Your task to perform on an android device: Open calendar and show me the fourth week of next month Image 0: 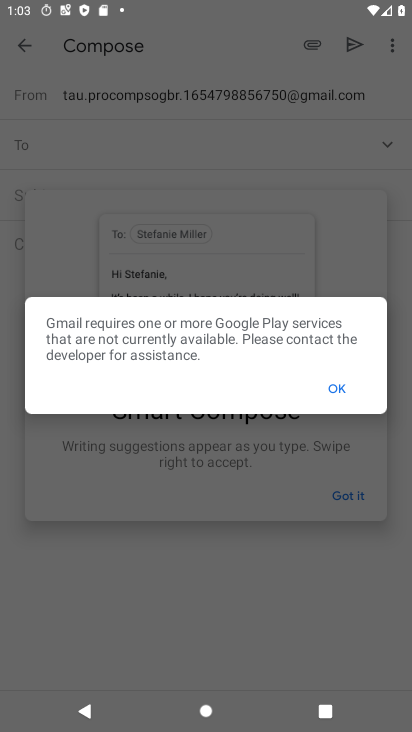
Step 0: press home button
Your task to perform on an android device: Open calendar and show me the fourth week of next month Image 1: 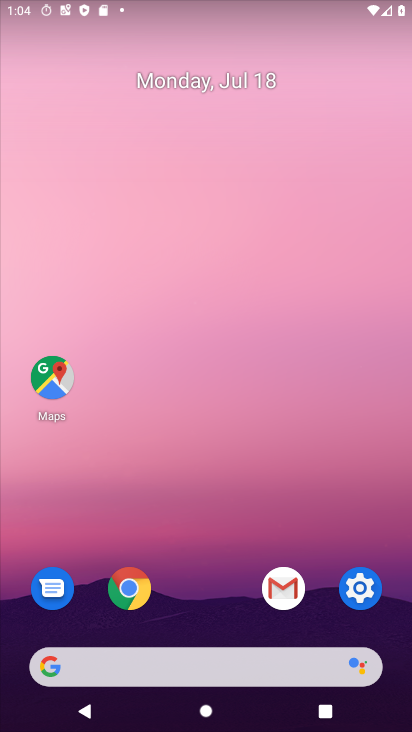
Step 1: drag from (294, 671) to (283, 106)
Your task to perform on an android device: Open calendar and show me the fourth week of next month Image 2: 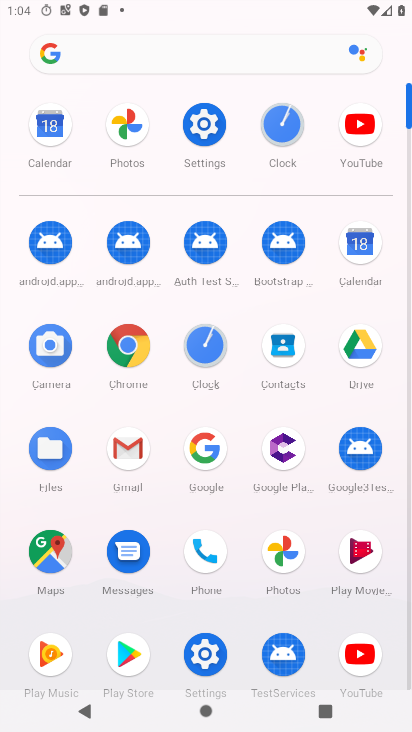
Step 2: click (360, 243)
Your task to perform on an android device: Open calendar and show me the fourth week of next month Image 3: 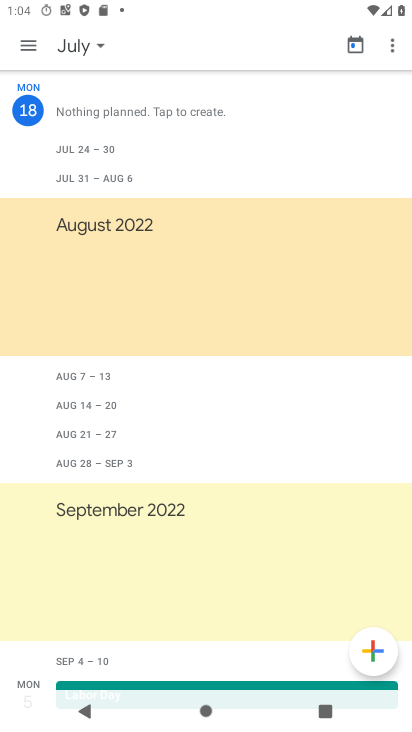
Step 3: click (33, 52)
Your task to perform on an android device: Open calendar and show me the fourth week of next month Image 4: 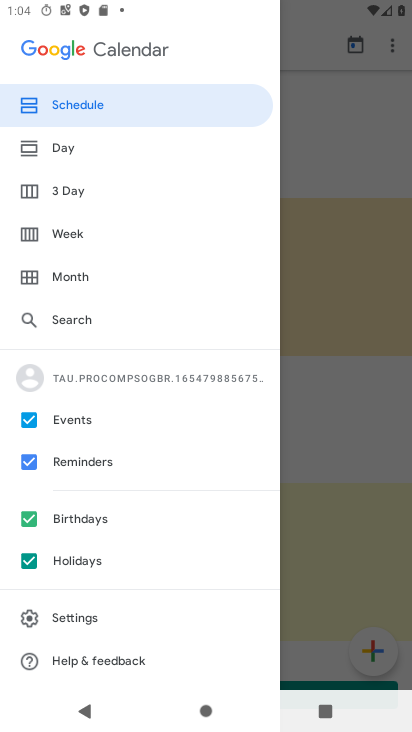
Step 4: click (84, 284)
Your task to perform on an android device: Open calendar and show me the fourth week of next month Image 5: 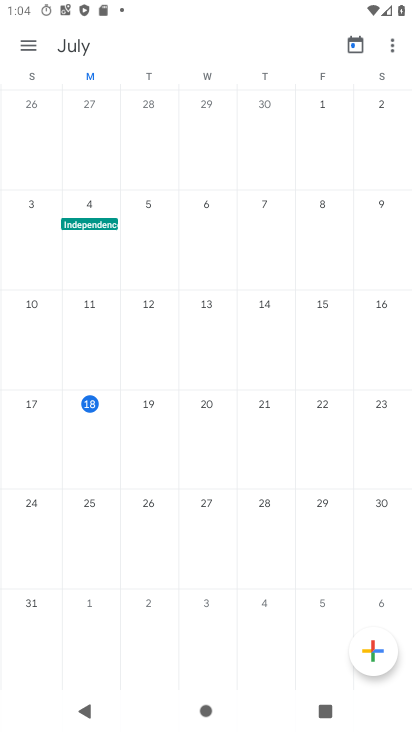
Step 5: drag from (384, 379) to (10, 556)
Your task to perform on an android device: Open calendar and show me the fourth week of next month Image 6: 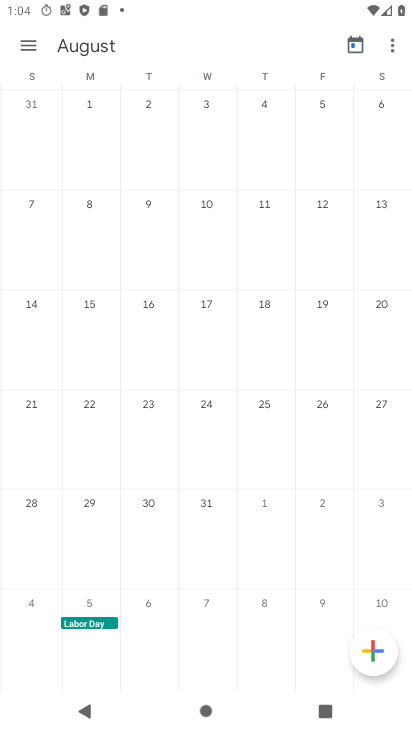
Step 6: click (87, 440)
Your task to perform on an android device: Open calendar and show me the fourth week of next month Image 7: 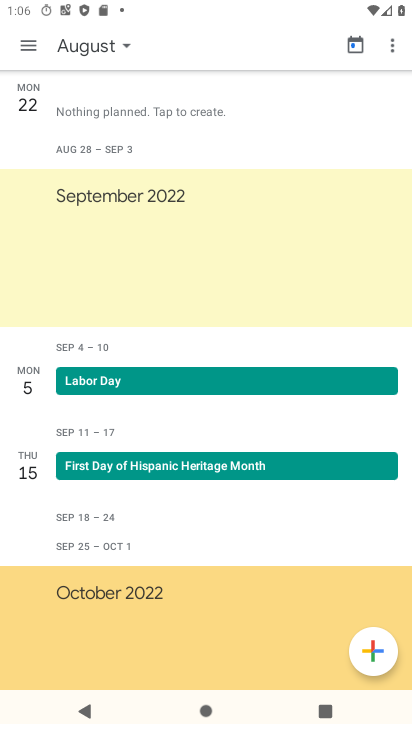
Step 7: task complete